Your task to perform on an android device: Go to Reddit.com Image 0: 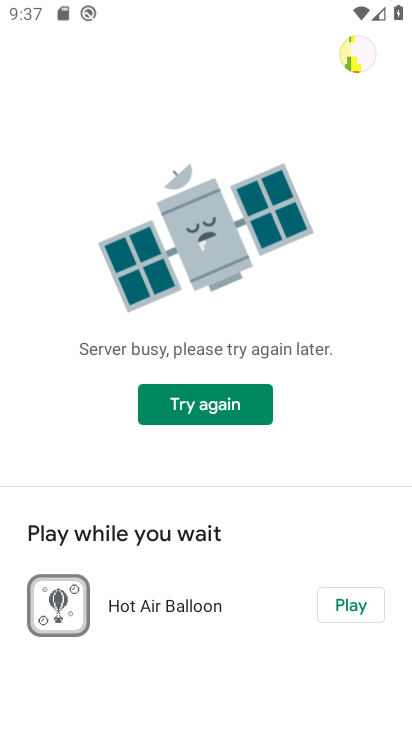
Step 0: press home button
Your task to perform on an android device: Go to Reddit.com Image 1: 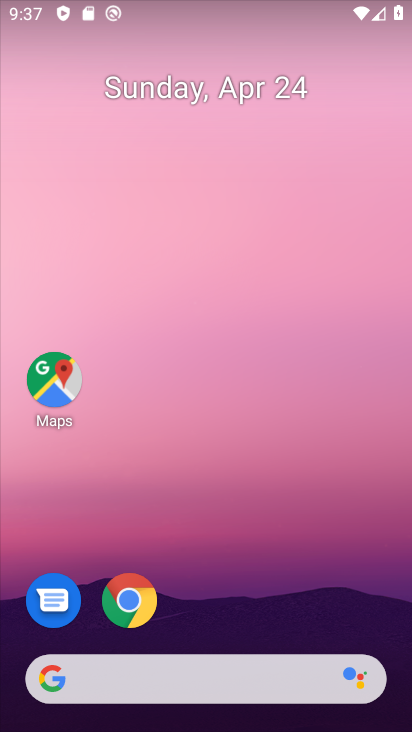
Step 1: click (149, 607)
Your task to perform on an android device: Go to Reddit.com Image 2: 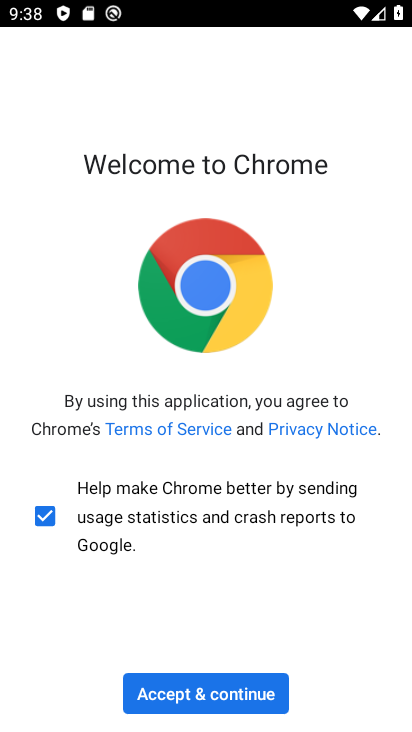
Step 2: click (186, 697)
Your task to perform on an android device: Go to Reddit.com Image 3: 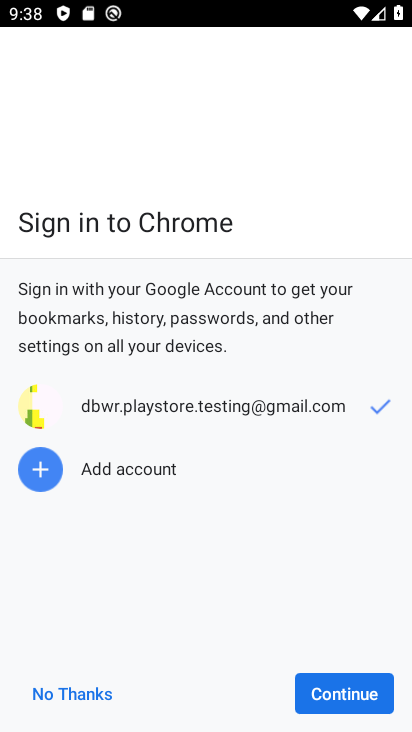
Step 3: click (342, 695)
Your task to perform on an android device: Go to Reddit.com Image 4: 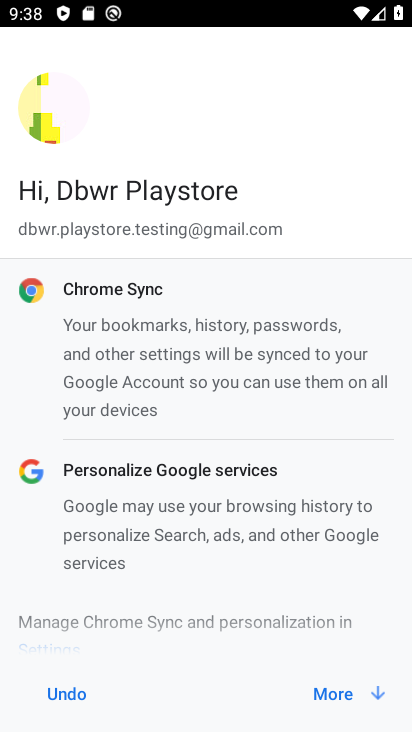
Step 4: click (342, 695)
Your task to perform on an android device: Go to Reddit.com Image 5: 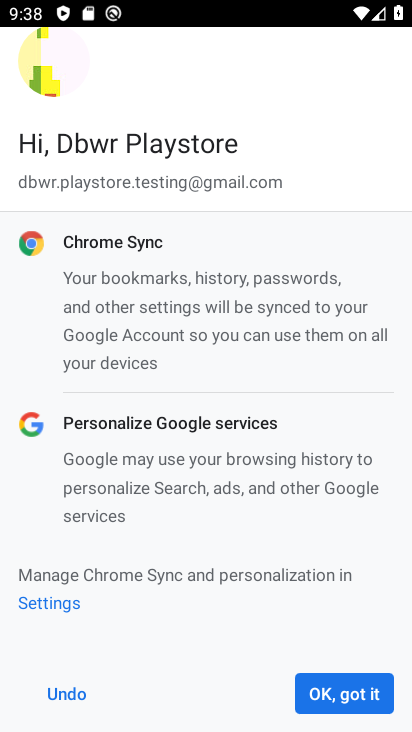
Step 5: click (342, 695)
Your task to perform on an android device: Go to Reddit.com Image 6: 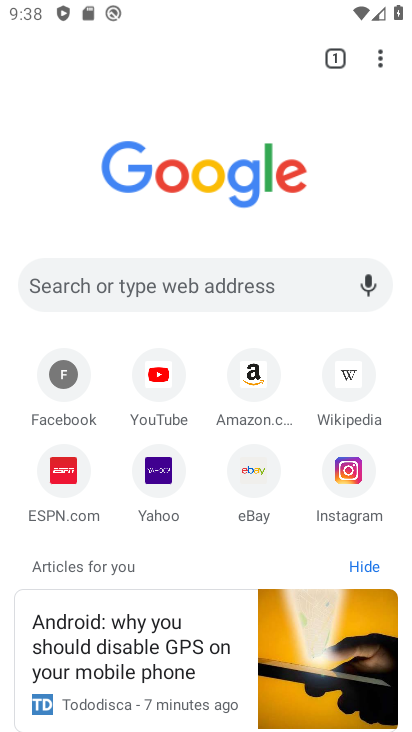
Step 6: type "Reddit.com"
Your task to perform on an android device: Go to Reddit.com Image 7: 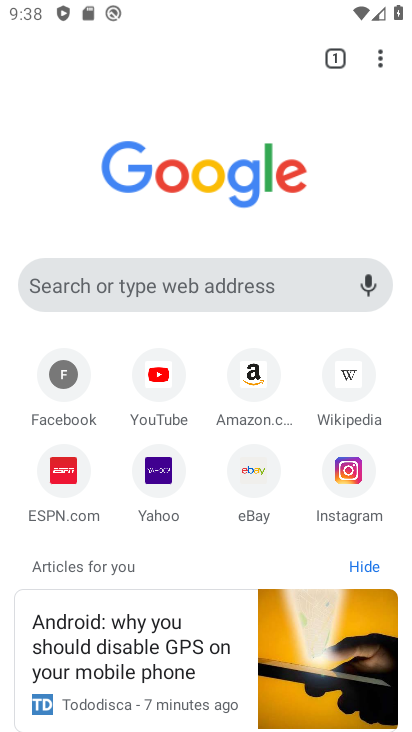
Step 7: click (230, 268)
Your task to perform on an android device: Go to Reddit.com Image 8: 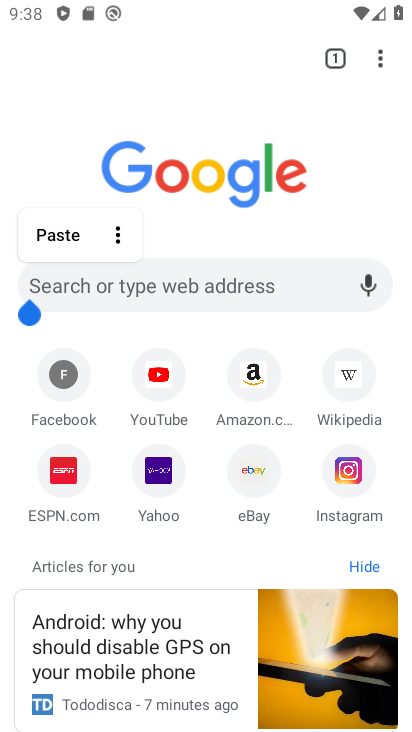
Step 8: click (183, 282)
Your task to perform on an android device: Go to Reddit.com Image 9: 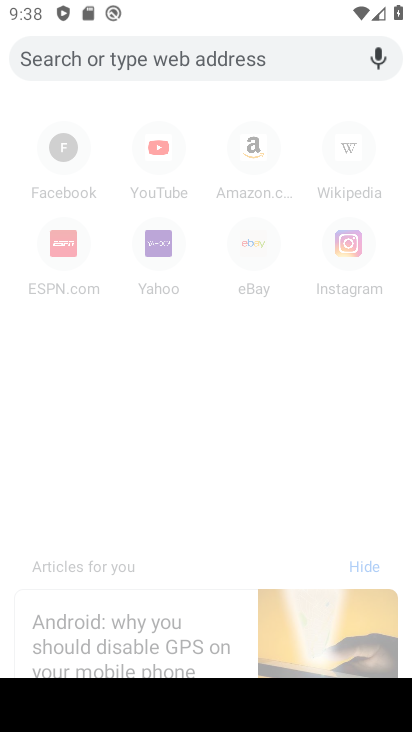
Step 9: type "Reddit.com"
Your task to perform on an android device: Go to Reddit.com Image 10: 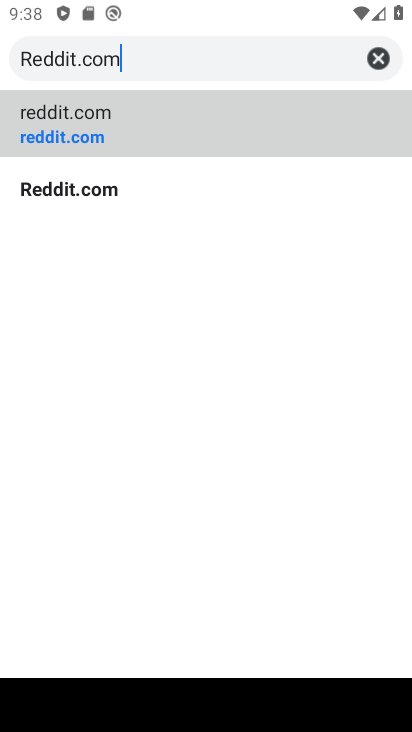
Step 10: click (75, 137)
Your task to perform on an android device: Go to Reddit.com Image 11: 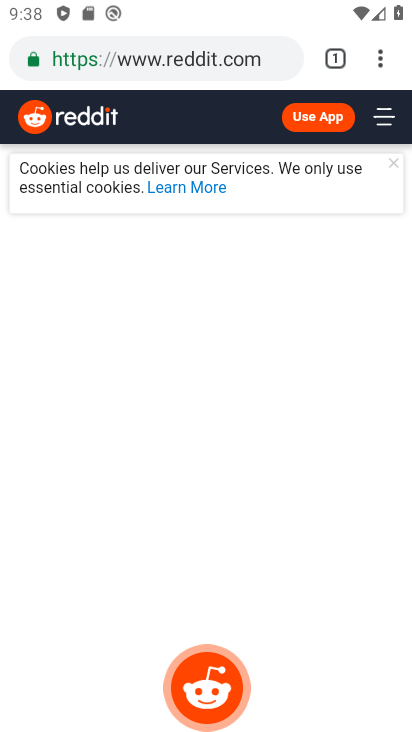
Step 11: task complete